Your task to perform on an android device: turn notification dots off Image 0: 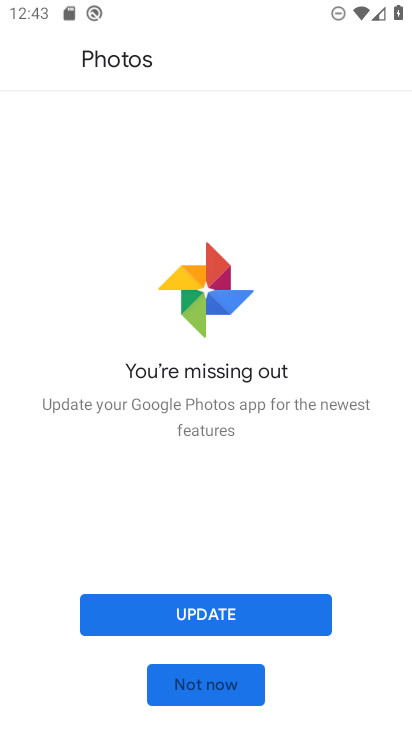
Step 0: press home button
Your task to perform on an android device: turn notification dots off Image 1: 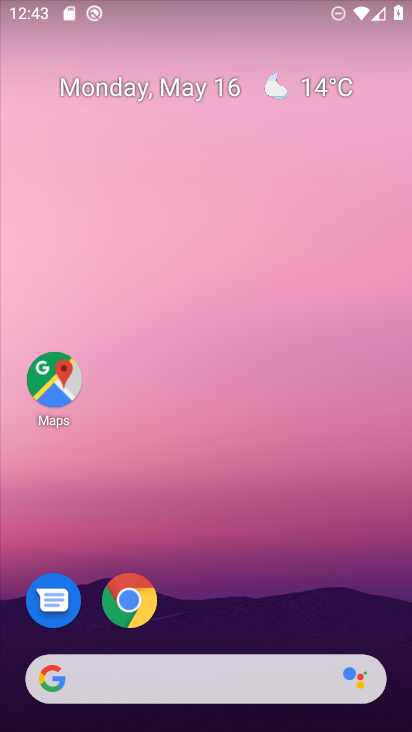
Step 1: drag from (227, 638) to (274, 32)
Your task to perform on an android device: turn notification dots off Image 2: 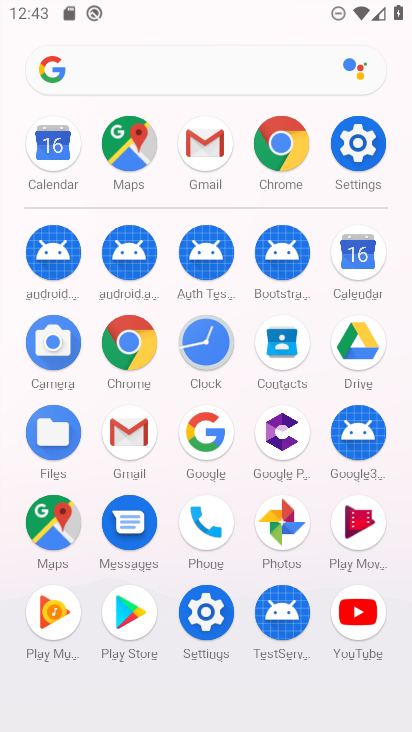
Step 2: click (356, 132)
Your task to perform on an android device: turn notification dots off Image 3: 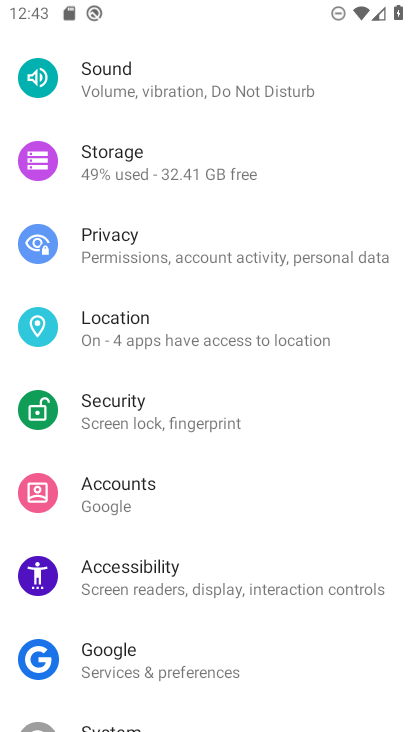
Step 3: drag from (145, 145) to (192, 530)
Your task to perform on an android device: turn notification dots off Image 4: 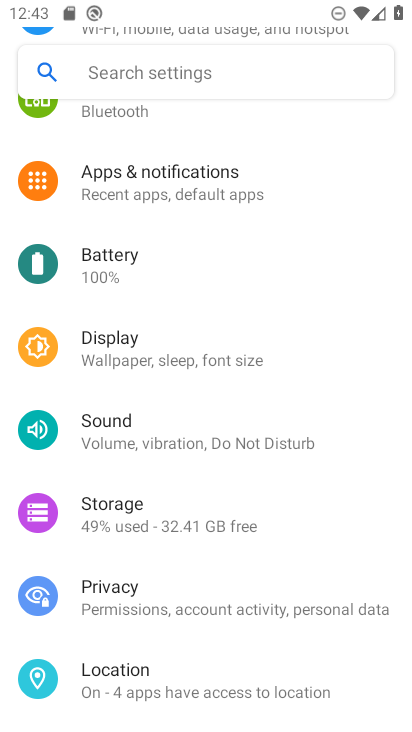
Step 4: click (172, 175)
Your task to perform on an android device: turn notification dots off Image 5: 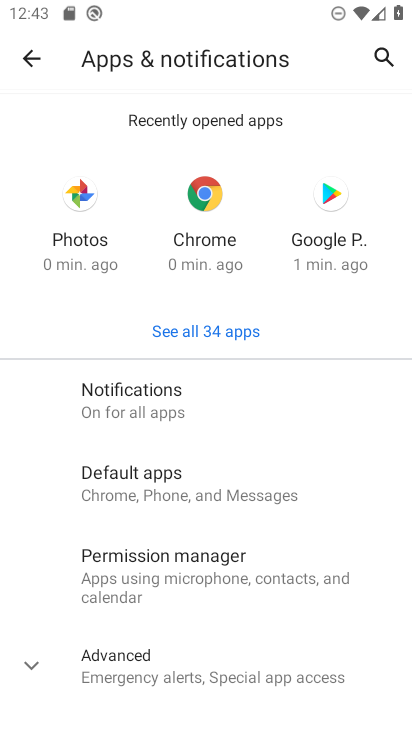
Step 5: click (209, 397)
Your task to perform on an android device: turn notification dots off Image 6: 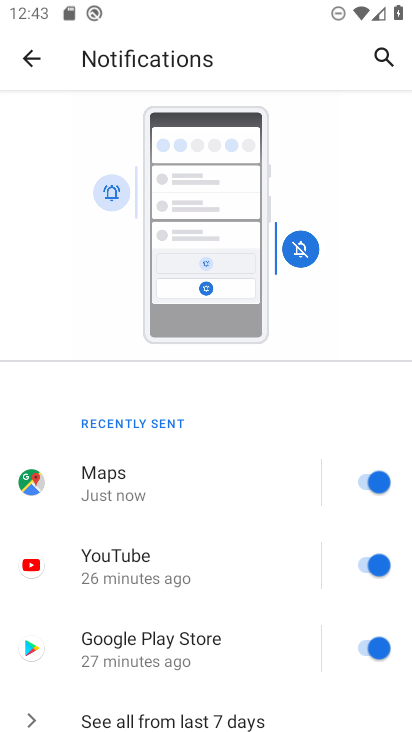
Step 6: drag from (236, 550) to (242, 12)
Your task to perform on an android device: turn notification dots off Image 7: 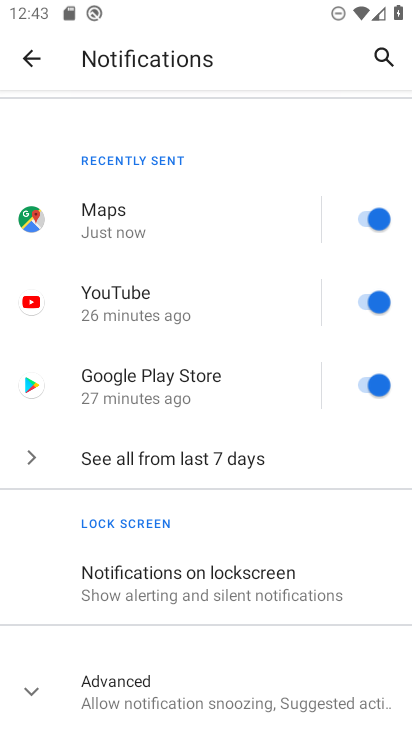
Step 7: drag from (180, 676) to (227, 159)
Your task to perform on an android device: turn notification dots off Image 8: 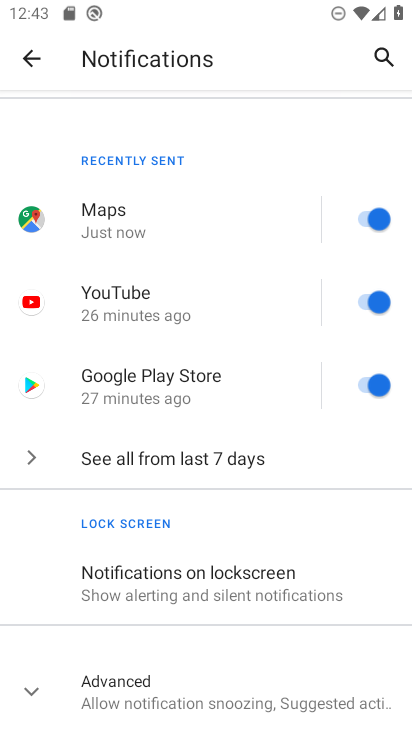
Step 8: click (133, 675)
Your task to perform on an android device: turn notification dots off Image 9: 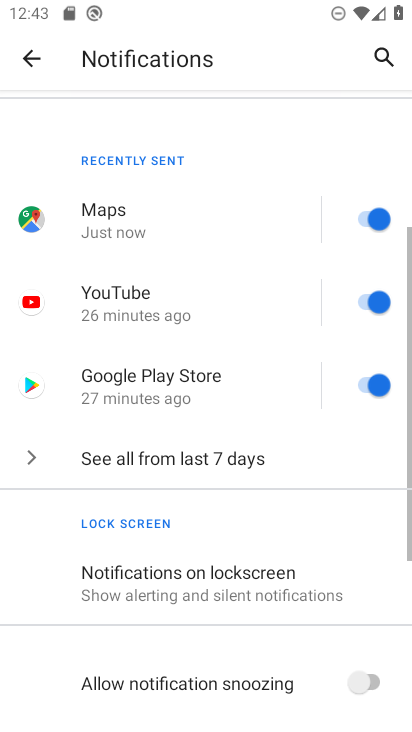
Step 9: drag from (238, 634) to (285, 43)
Your task to perform on an android device: turn notification dots off Image 10: 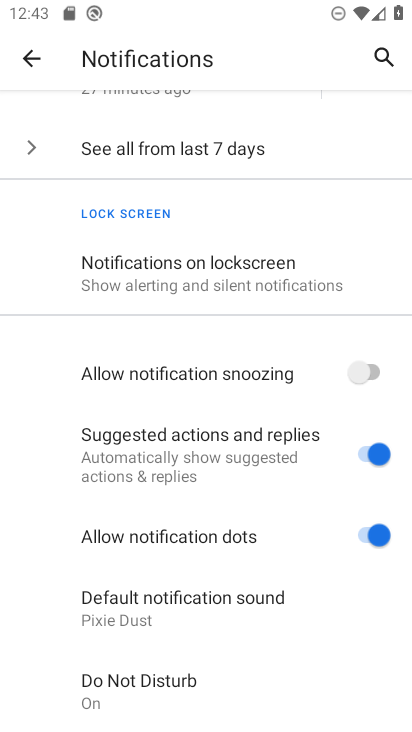
Step 10: click (365, 531)
Your task to perform on an android device: turn notification dots off Image 11: 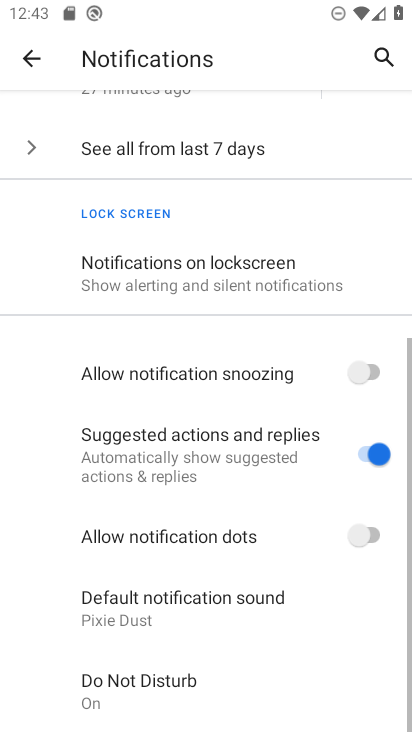
Step 11: task complete